Your task to perform on an android device: Open calendar and show me the second week of next month Image 0: 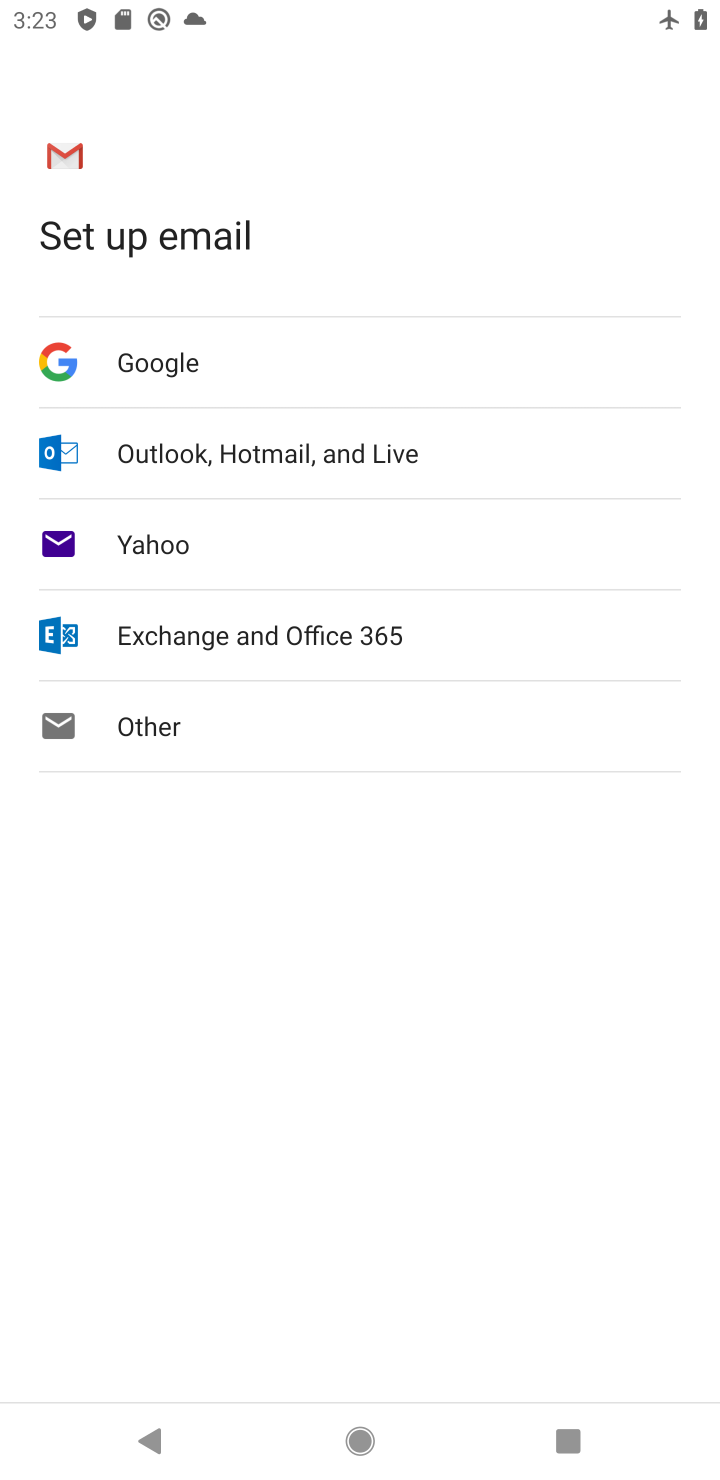
Step 0: press back button
Your task to perform on an android device: Open calendar and show me the second week of next month Image 1: 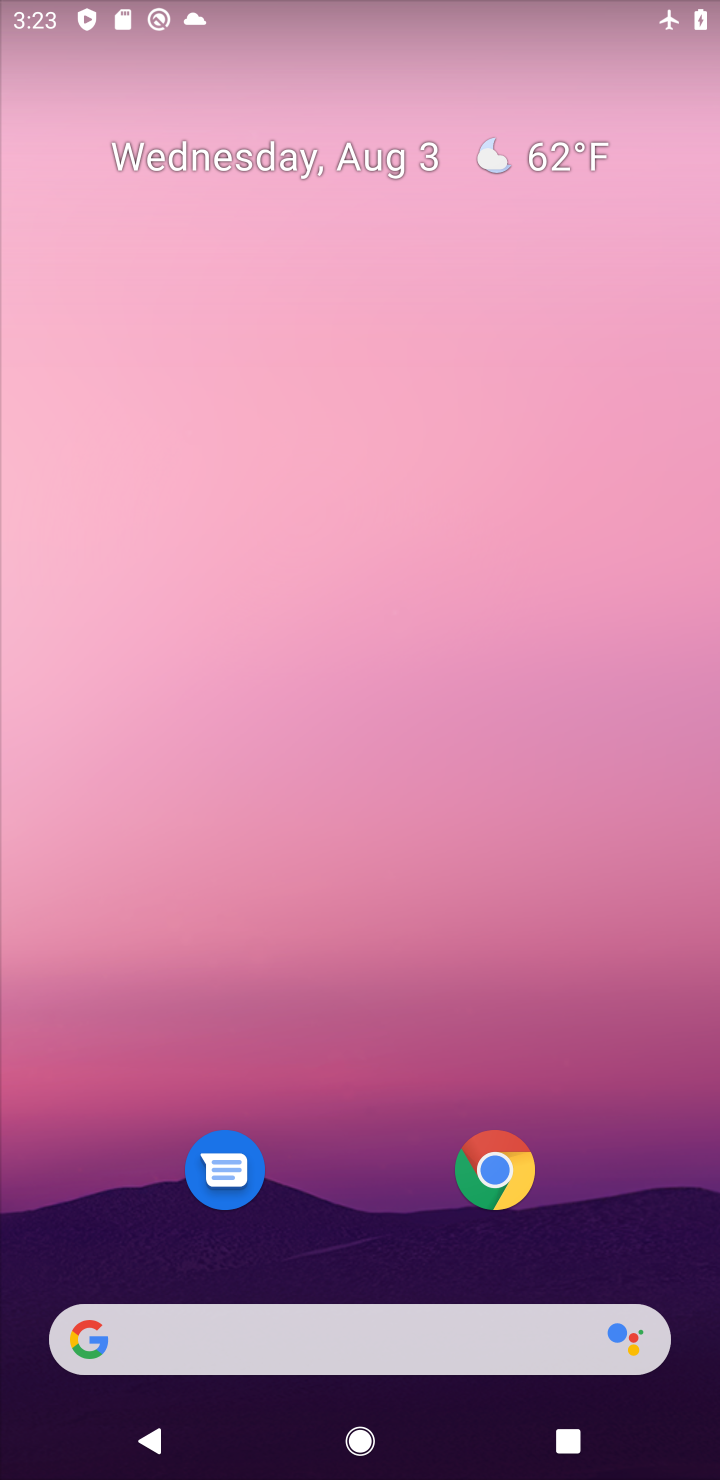
Step 1: press back button
Your task to perform on an android device: Open calendar and show me the second week of next month Image 2: 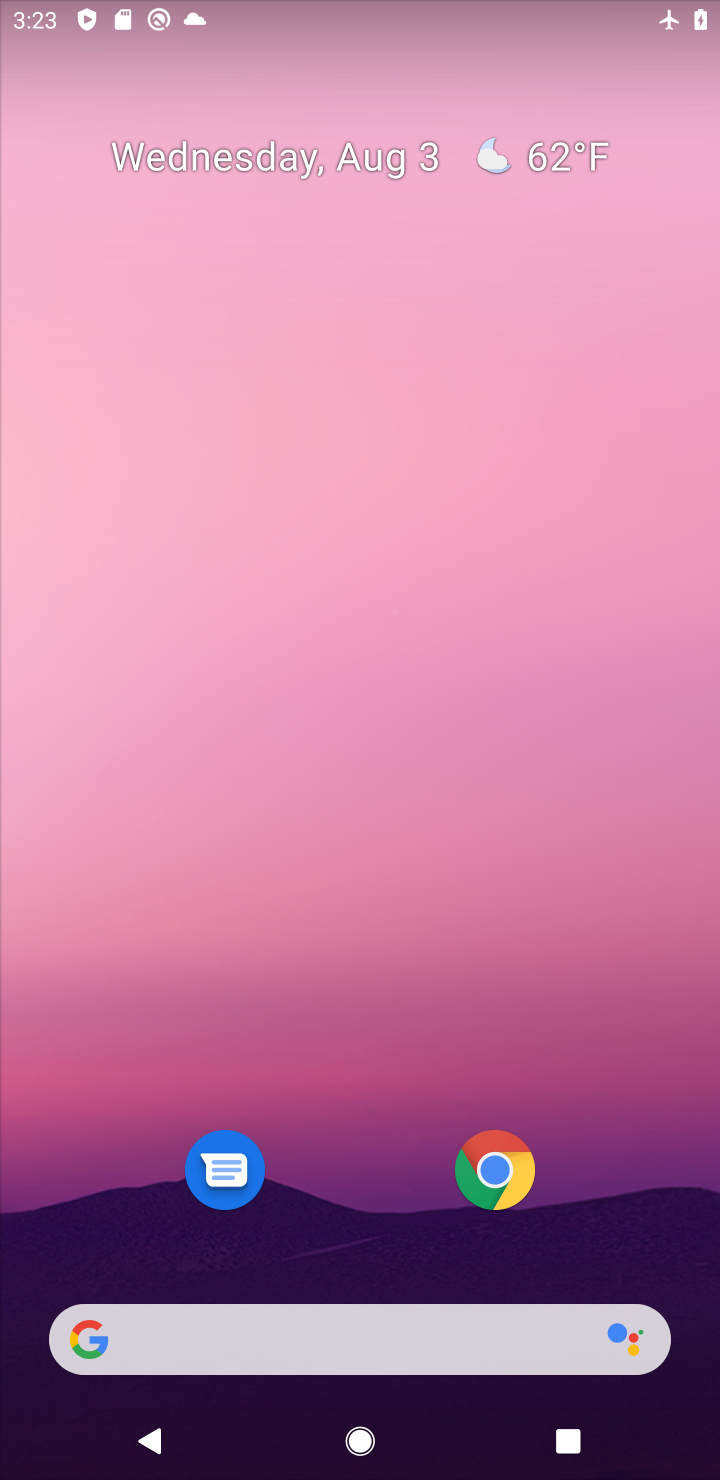
Step 2: drag from (317, 1219) to (582, 113)
Your task to perform on an android device: Open calendar and show me the second week of next month Image 3: 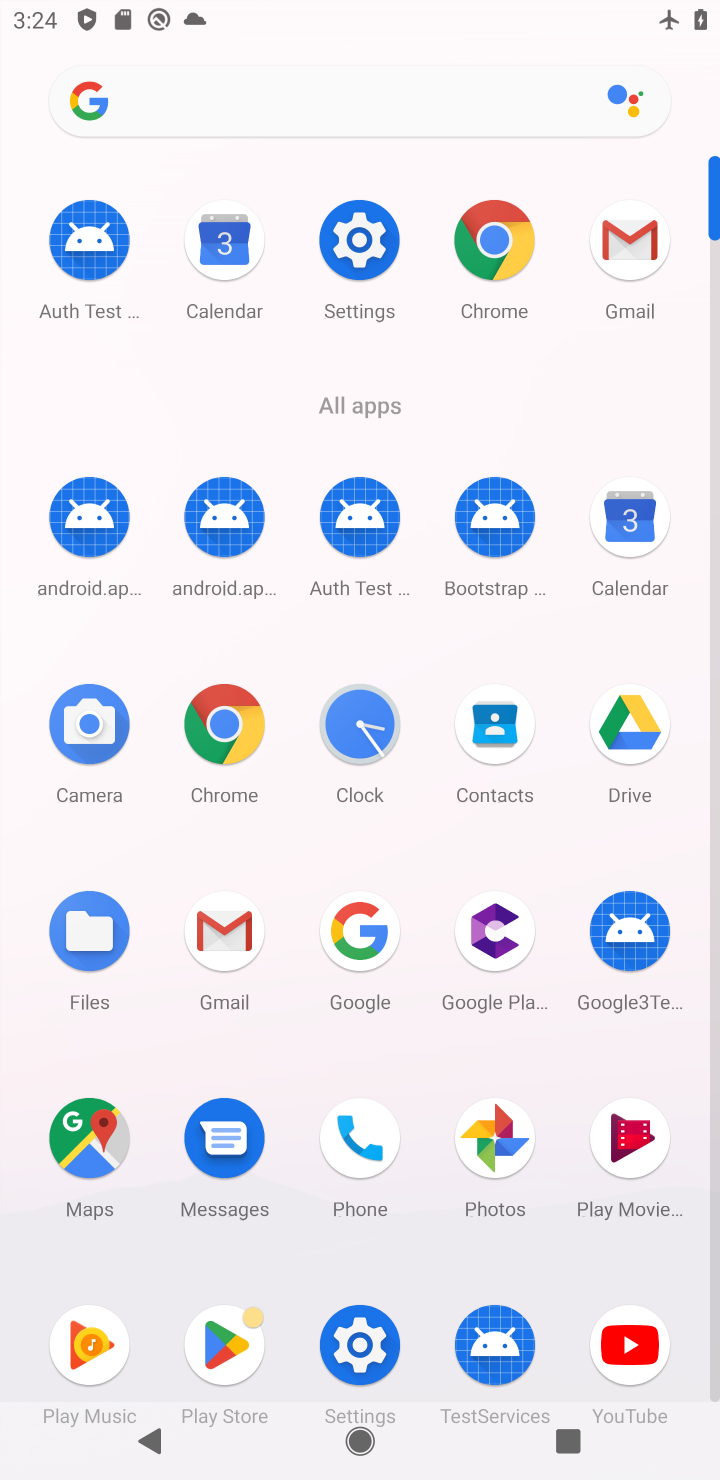
Step 3: click (612, 528)
Your task to perform on an android device: Open calendar and show me the second week of next month Image 4: 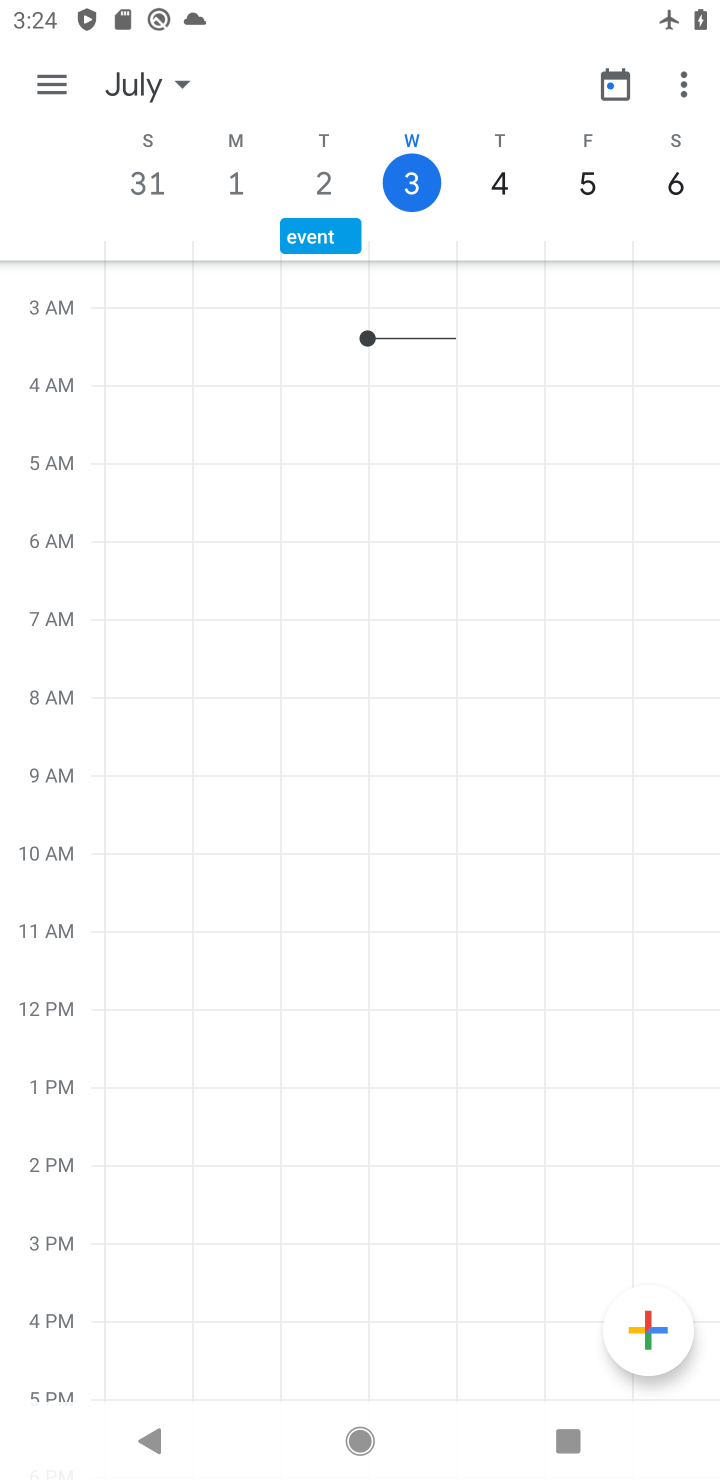
Step 4: click (157, 95)
Your task to perform on an android device: Open calendar and show me the second week of next month Image 5: 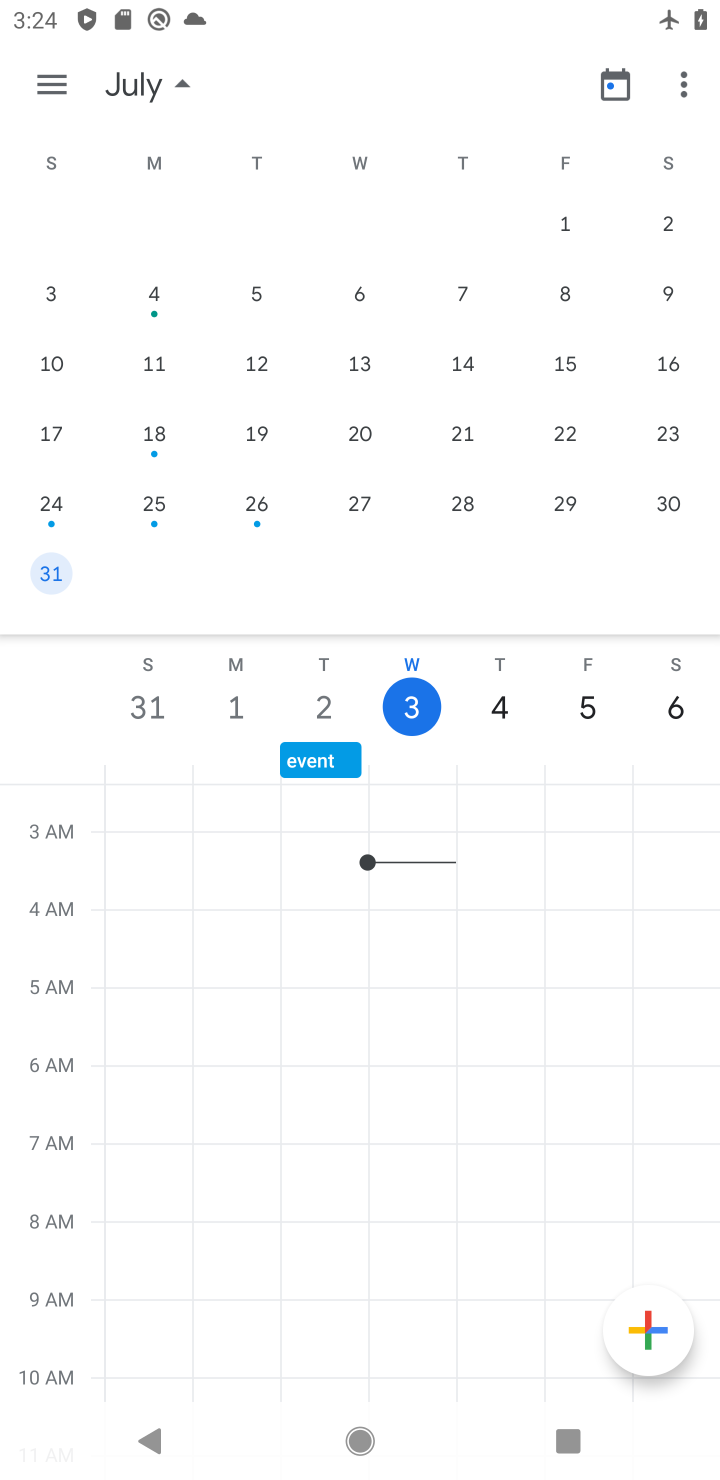
Step 5: click (157, 95)
Your task to perform on an android device: Open calendar and show me the second week of next month Image 6: 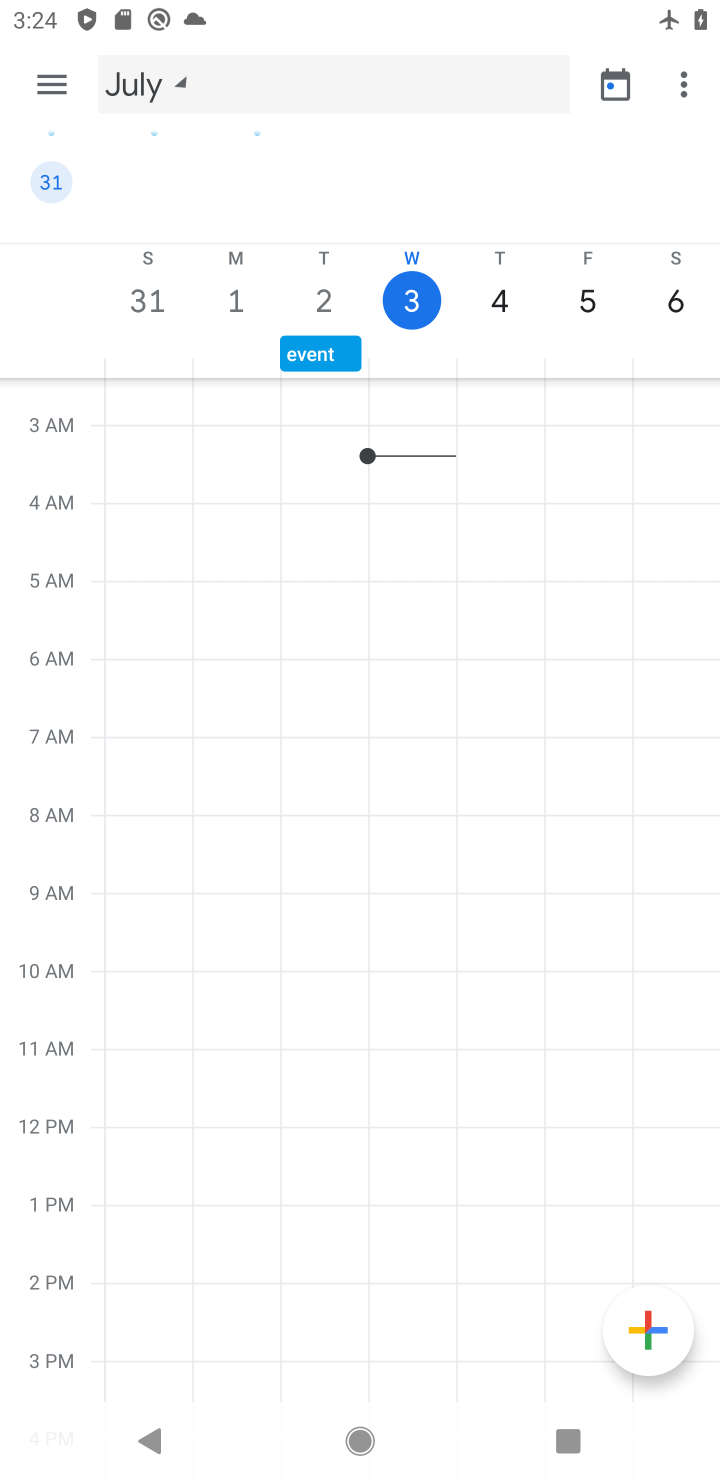
Step 6: drag from (458, 368) to (30, 446)
Your task to perform on an android device: Open calendar and show me the second week of next month Image 7: 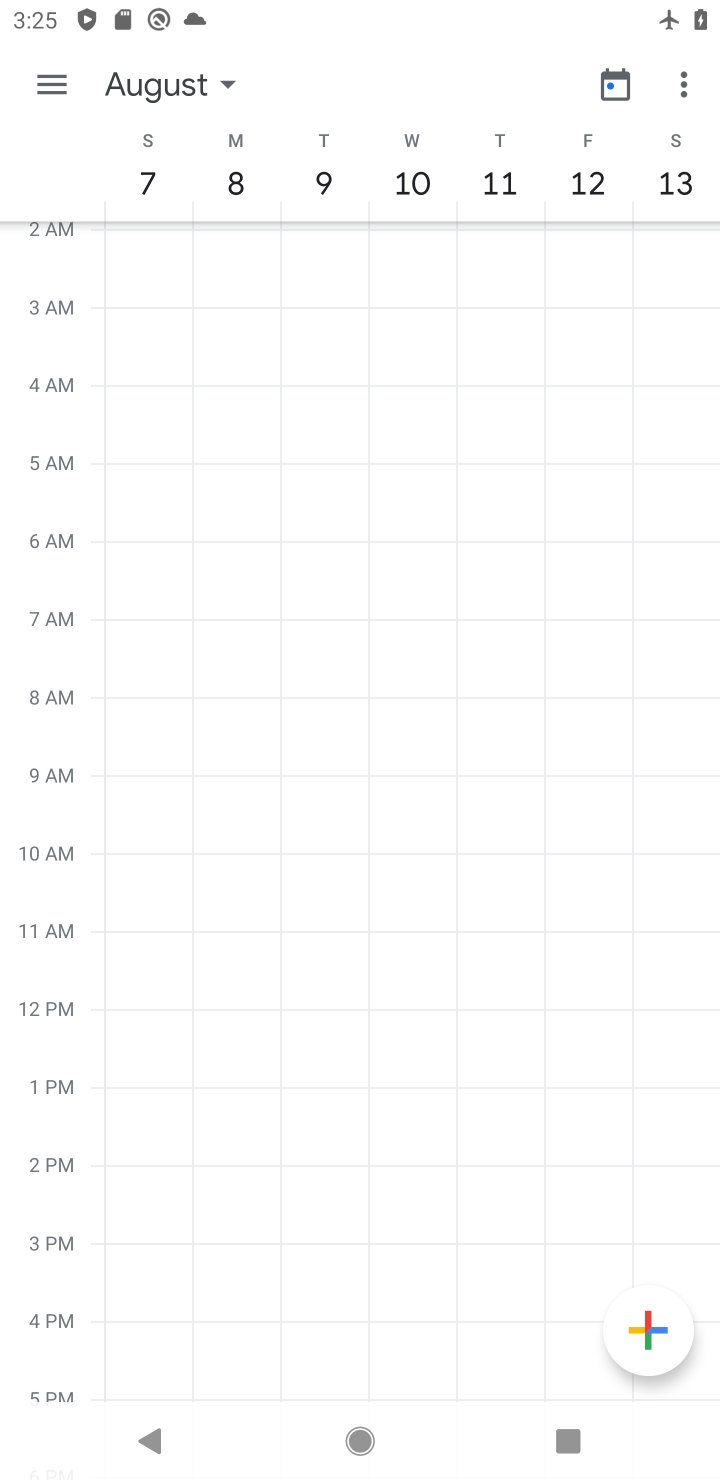
Step 7: click (47, 71)
Your task to perform on an android device: Open calendar and show me the second week of next month Image 8: 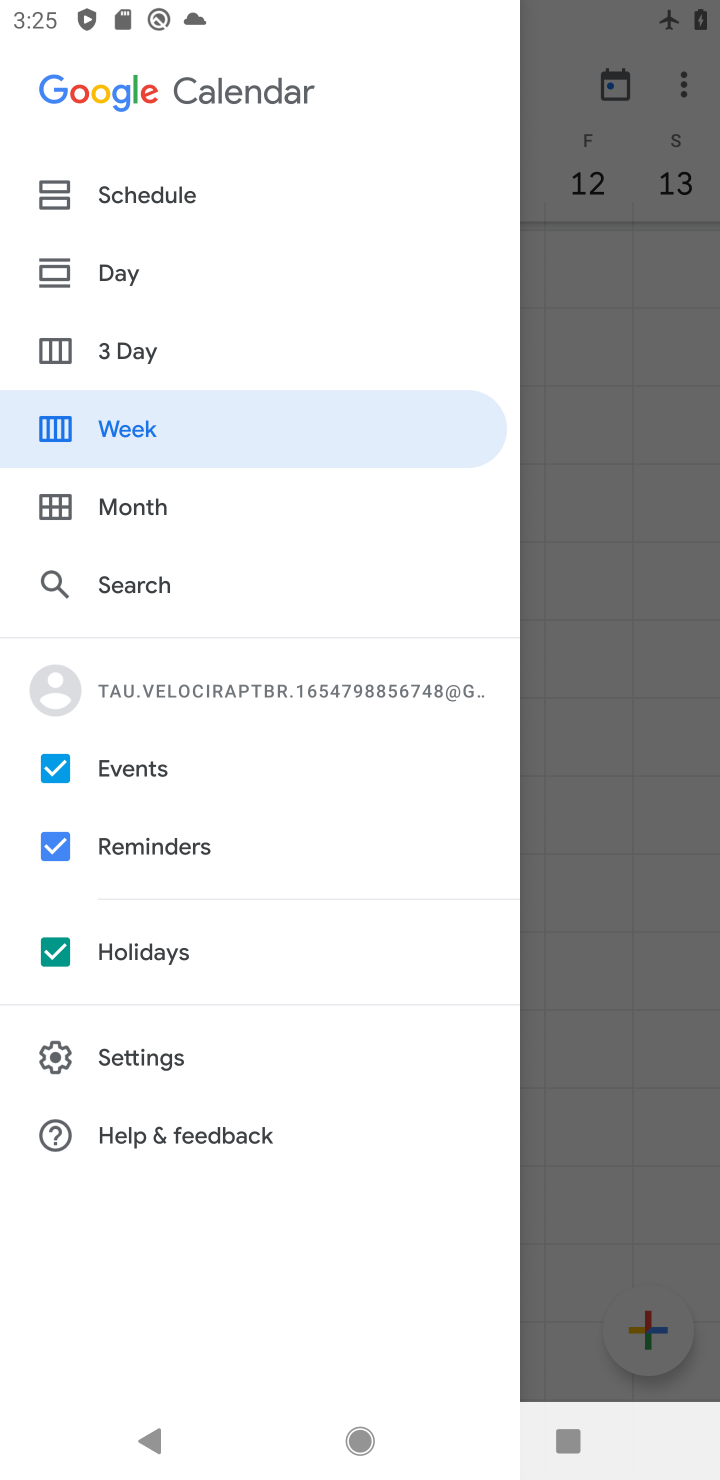
Step 8: click (201, 424)
Your task to perform on an android device: Open calendar and show me the second week of next month Image 9: 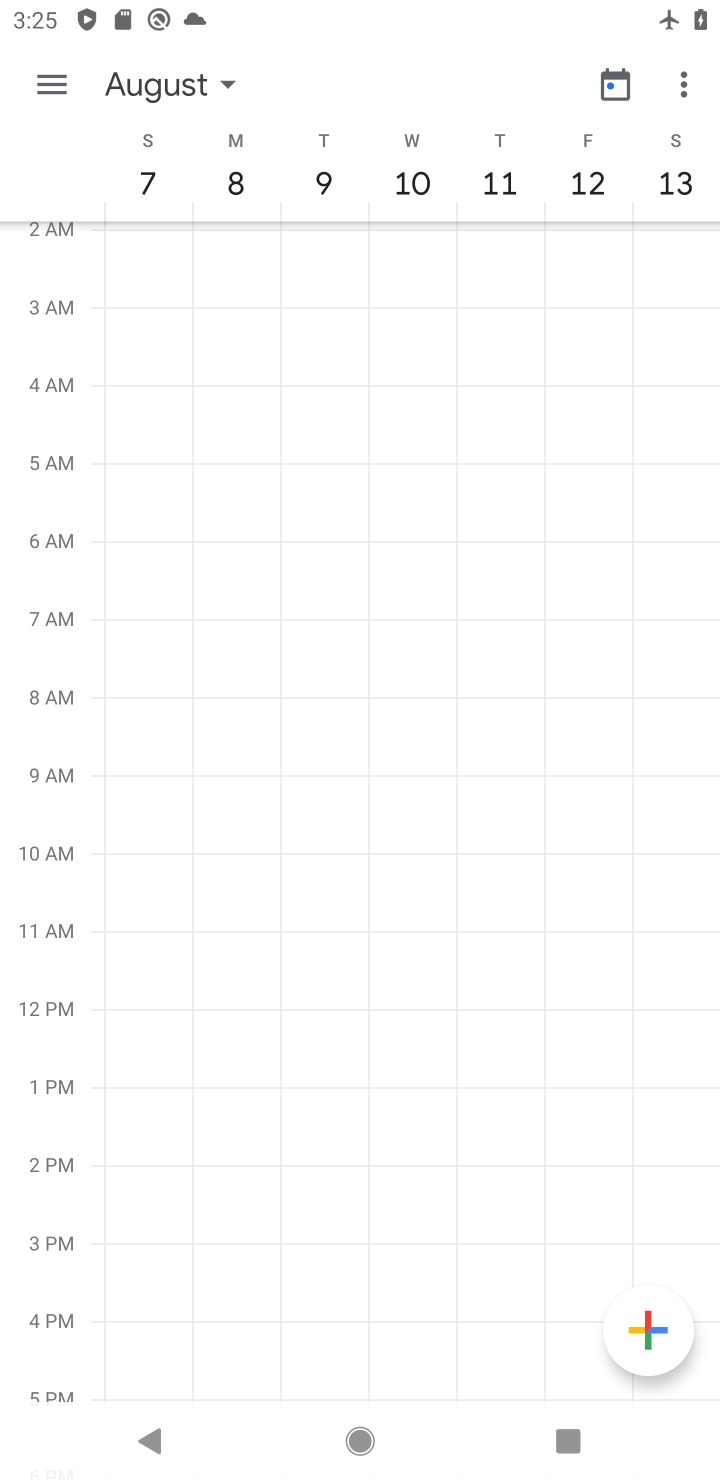
Step 9: click (185, 94)
Your task to perform on an android device: Open calendar and show me the second week of next month Image 10: 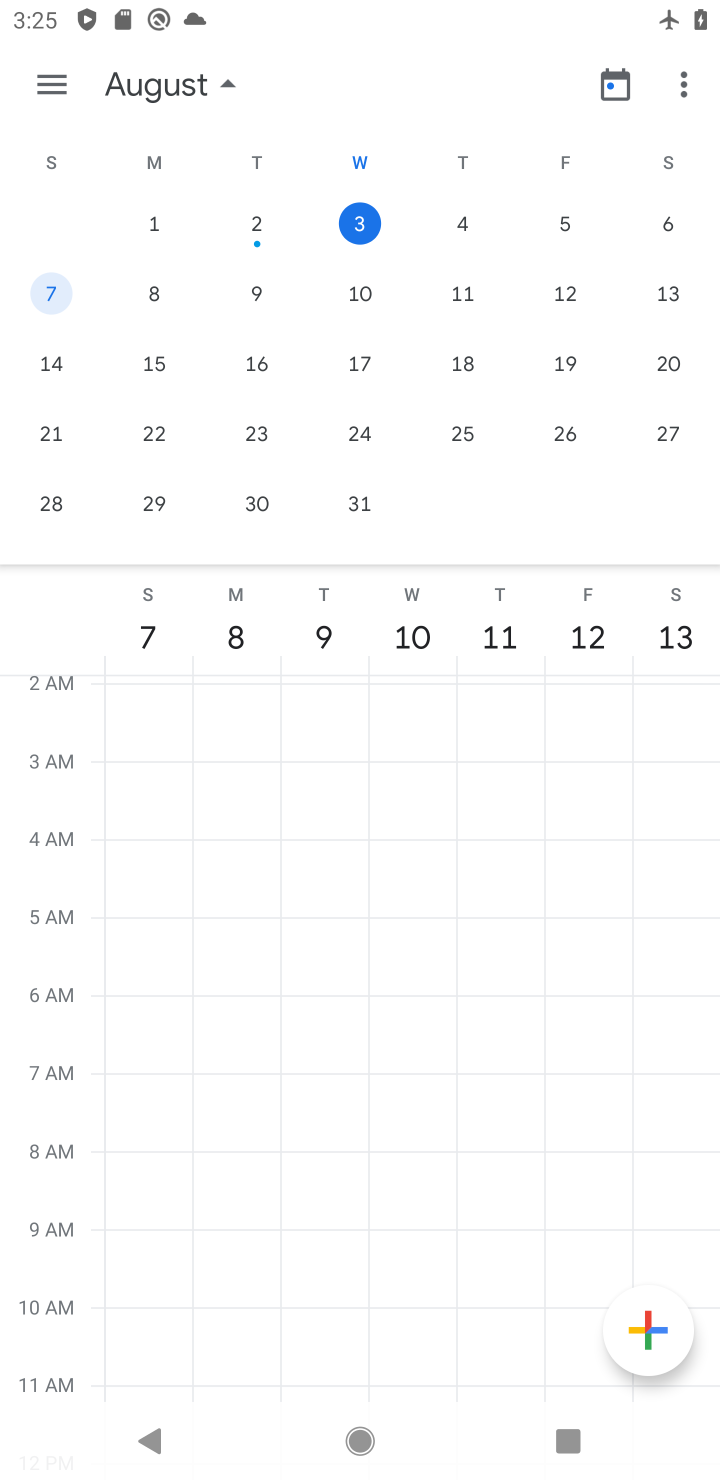
Step 10: drag from (568, 278) to (182, 201)
Your task to perform on an android device: Open calendar and show me the second week of next month Image 11: 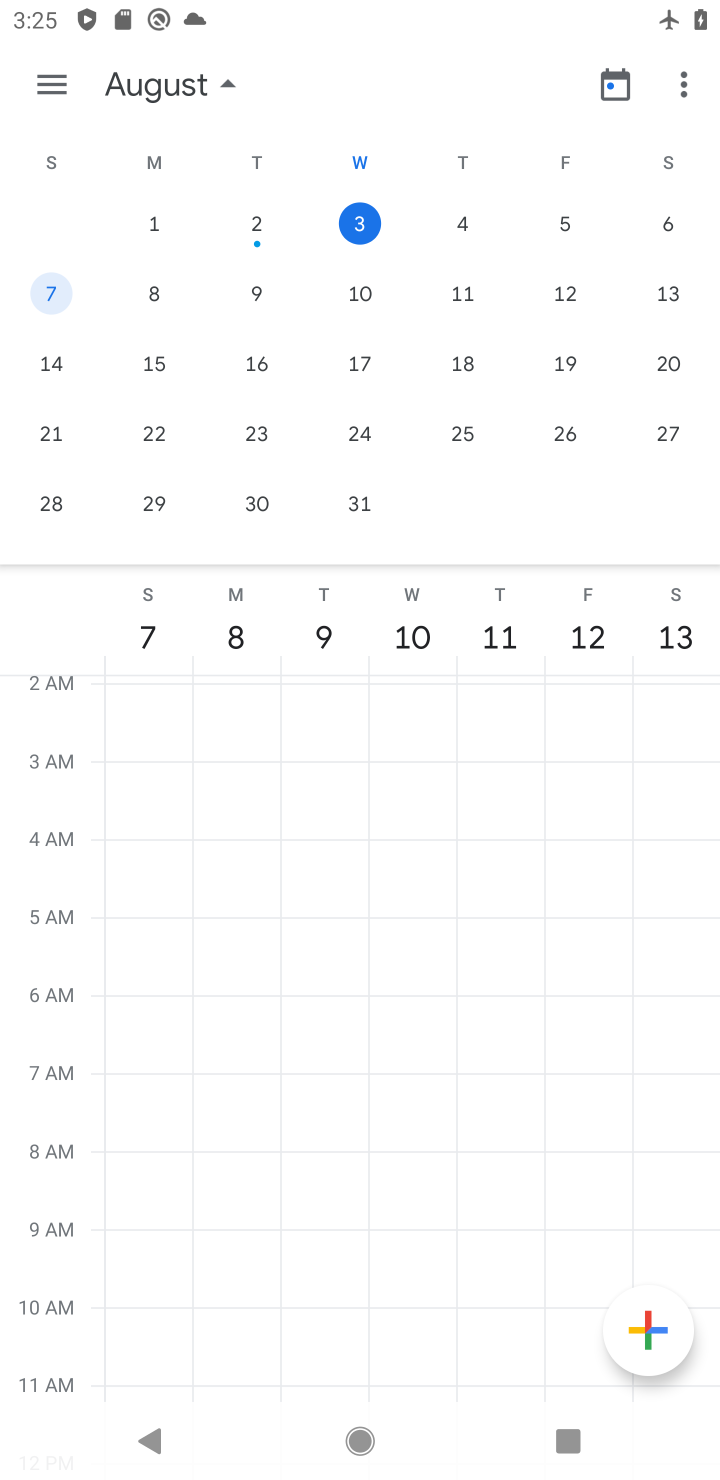
Step 11: click (46, 299)
Your task to perform on an android device: Open calendar and show me the second week of next month Image 12: 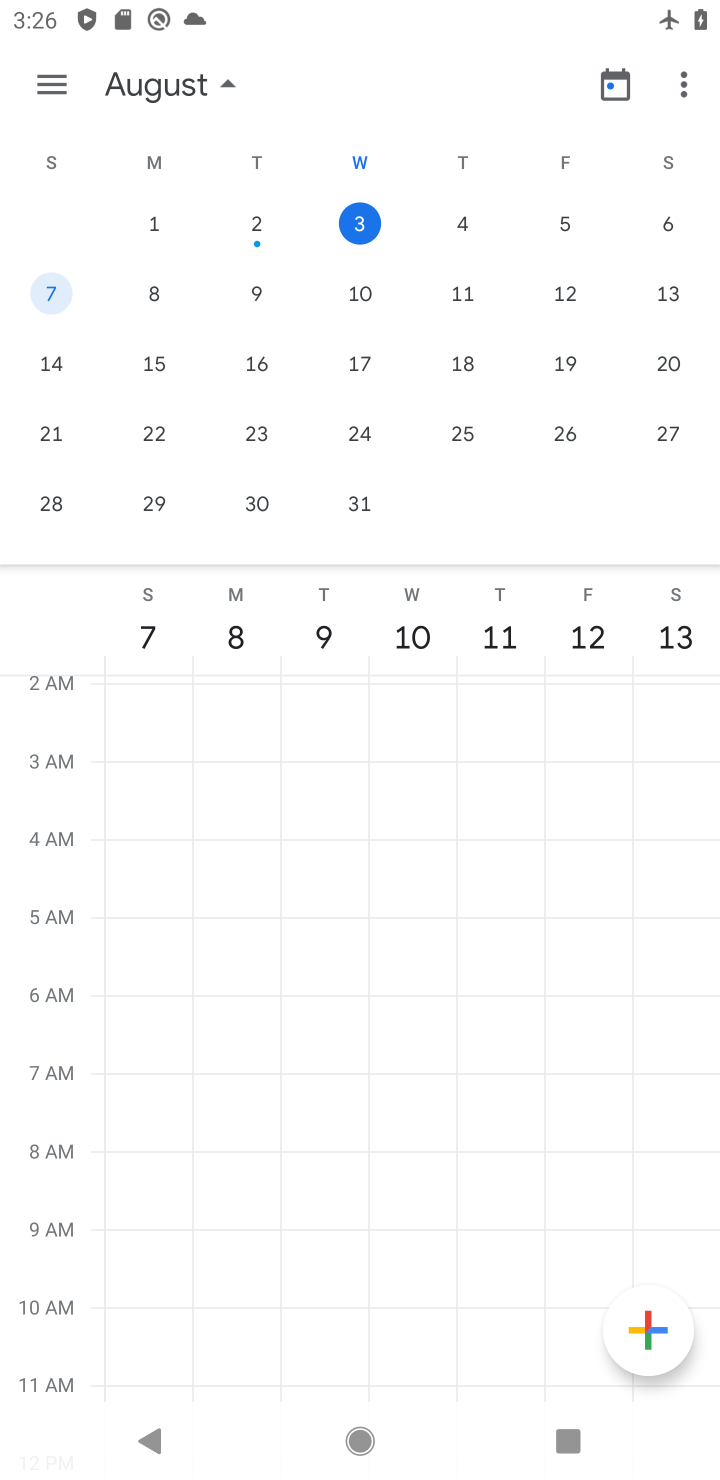
Step 12: task complete